Your task to perform on an android device: turn on improve location accuracy Image 0: 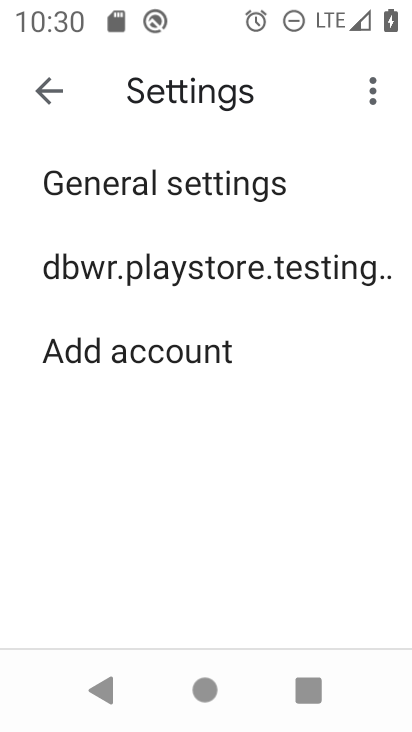
Step 0: press home button
Your task to perform on an android device: turn on improve location accuracy Image 1: 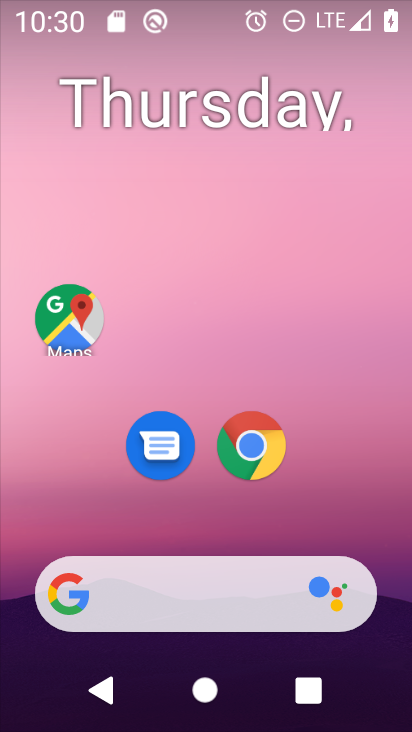
Step 1: drag from (396, 605) to (337, 52)
Your task to perform on an android device: turn on improve location accuracy Image 2: 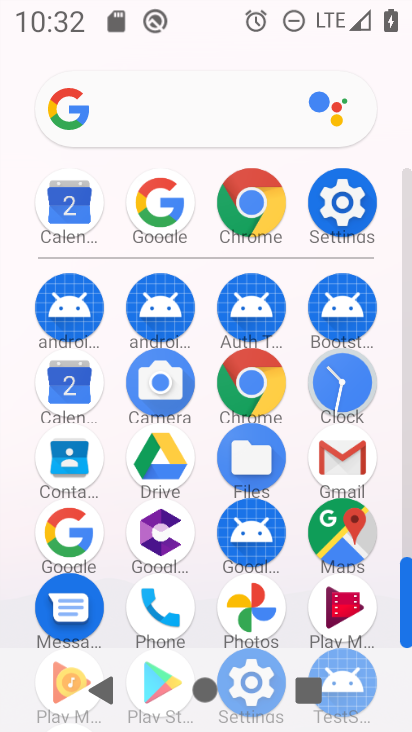
Step 2: click (330, 225)
Your task to perform on an android device: turn on improve location accuracy Image 3: 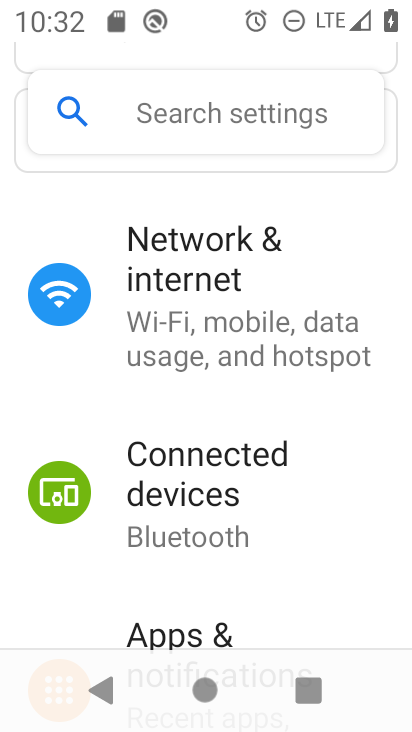
Step 3: drag from (243, 591) to (275, 89)
Your task to perform on an android device: turn on improve location accuracy Image 4: 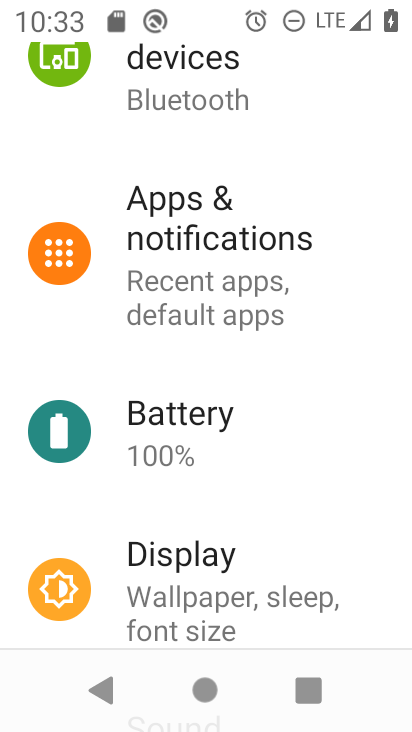
Step 4: drag from (192, 614) to (230, 72)
Your task to perform on an android device: turn on improve location accuracy Image 5: 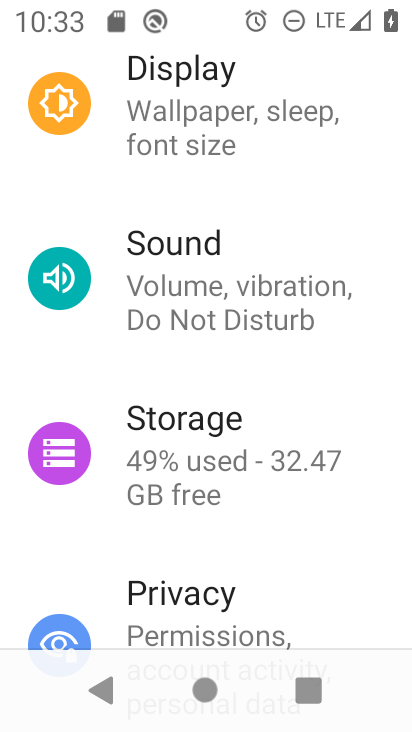
Step 5: drag from (225, 607) to (273, 133)
Your task to perform on an android device: turn on improve location accuracy Image 6: 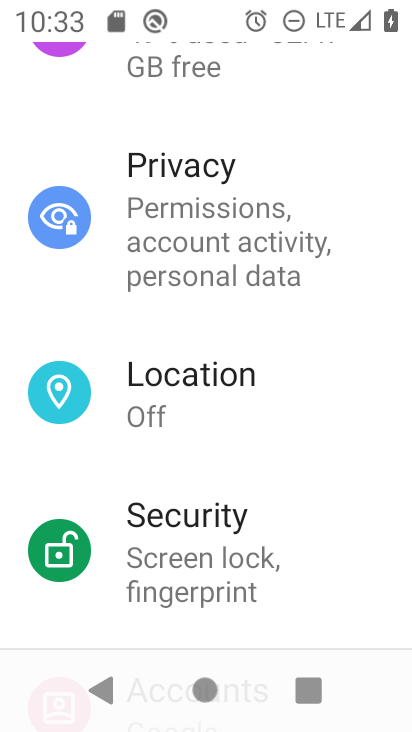
Step 6: click (273, 377)
Your task to perform on an android device: turn on improve location accuracy Image 7: 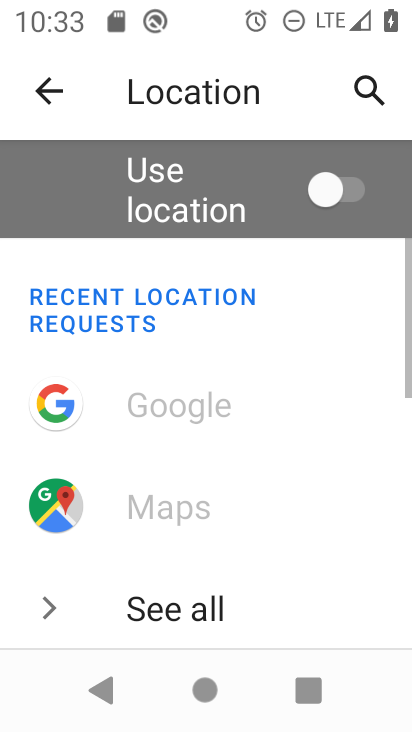
Step 7: drag from (235, 626) to (287, 418)
Your task to perform on an android device: turn on improve location accuracy Image 8: 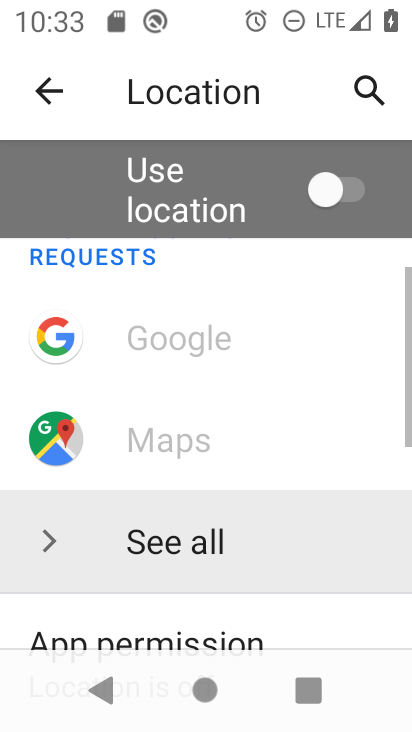
Step 8: drag from (299, 308) to (298, 79)
Your task to perform on an android device: turn on improve location accuracy Image 9: 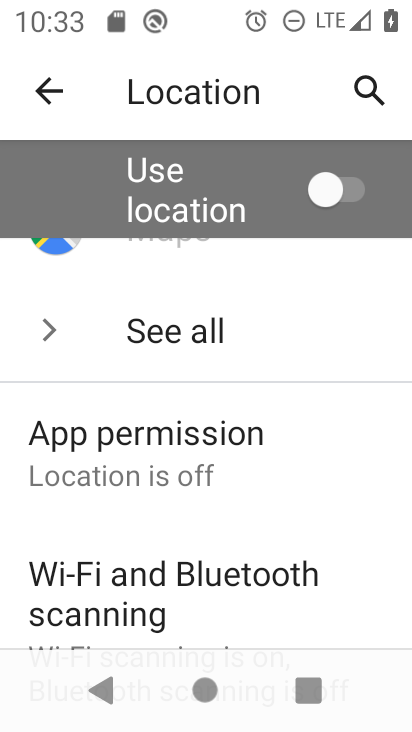
Step 9: drag from (281, 566) to (274, 150)
Your task to perform on an android device: turn on improve location accuracy Image 10: 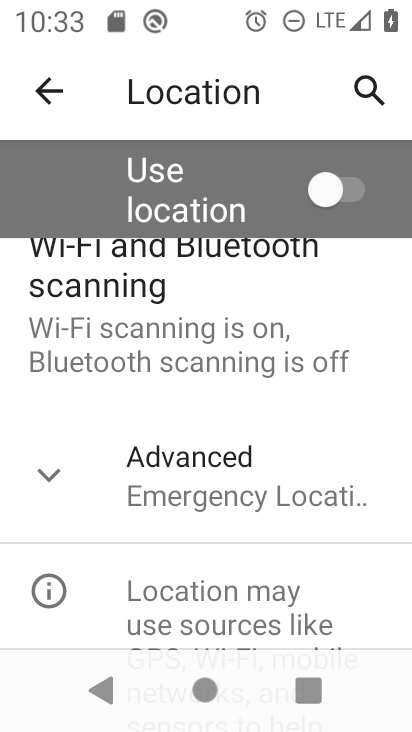
Step 10: click (255, 500)
Your task to perform on an android device: turn on improve location accuracy Image 11: 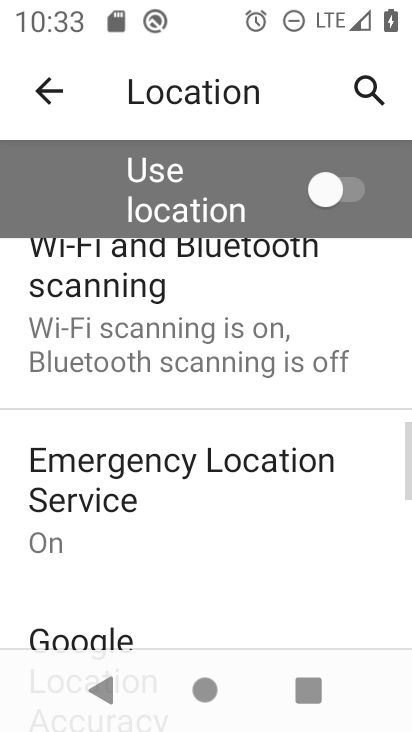
Step 11: drag from (201, 569) to (214, 167)
Your task to perform on an android device: turn on improve location accuracy Image 12: 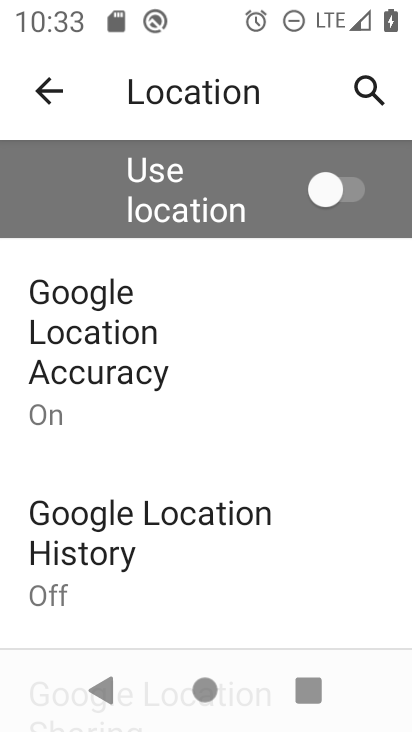
Step 12: click (156, 384)
Your task to perform on an android device: turn on improve location accuracy Image 13: 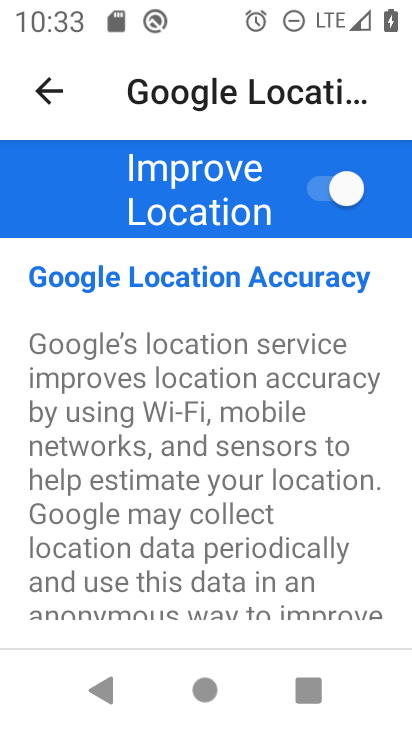
Step 13: task complete